Your task to perform on an android device: Open settings on Google Maps Image 0: 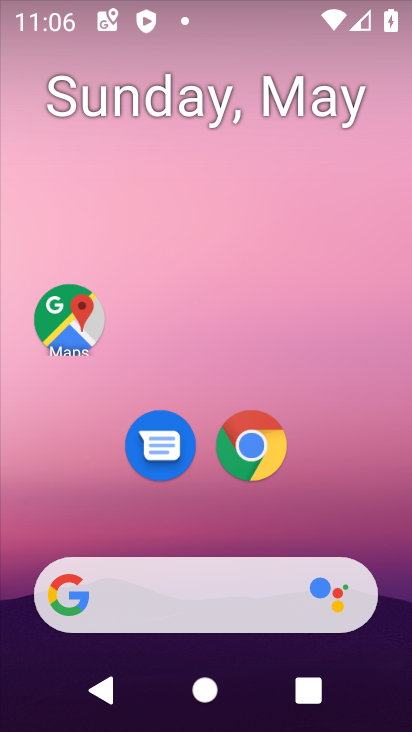
Step 0: click (52, 325)
Your task to perform on an android device: Open settings on Google Maps Image 1: 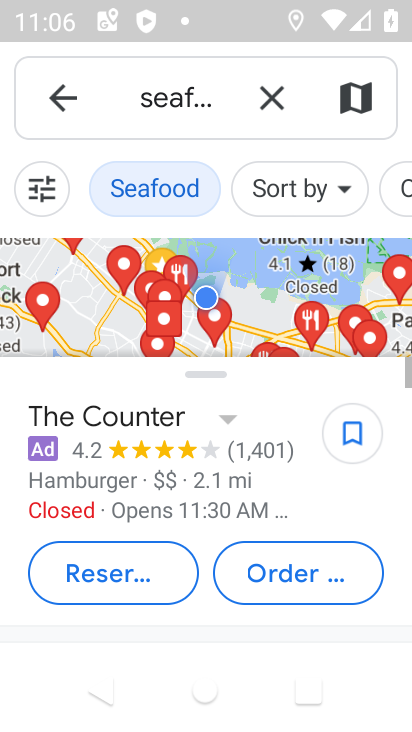
Step 1: click (59, 104)
Your task to perform on an android device: Open settings on Google Maps Image 2: 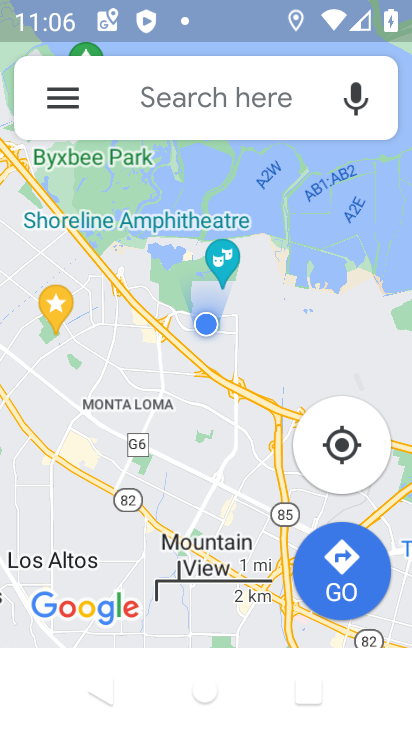
Step 2: click (59, 104)
Your task to perform on an android device: Open settings on Google Maps Image 3: 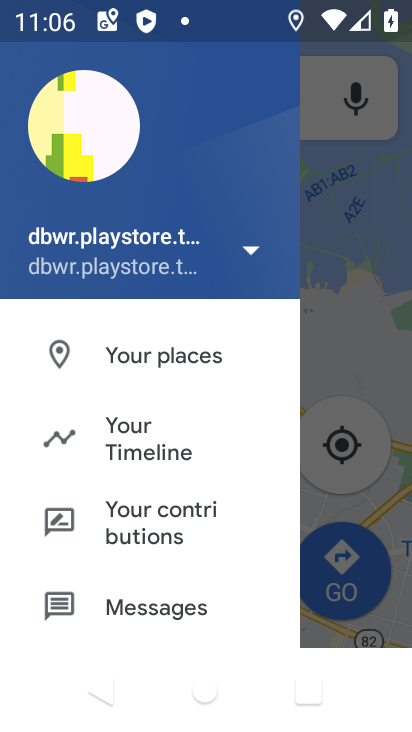
Step 3: drag from (143, 555) to (209, 56)
Your task to perform on an android device: Open settings on Google Maps Image 4: 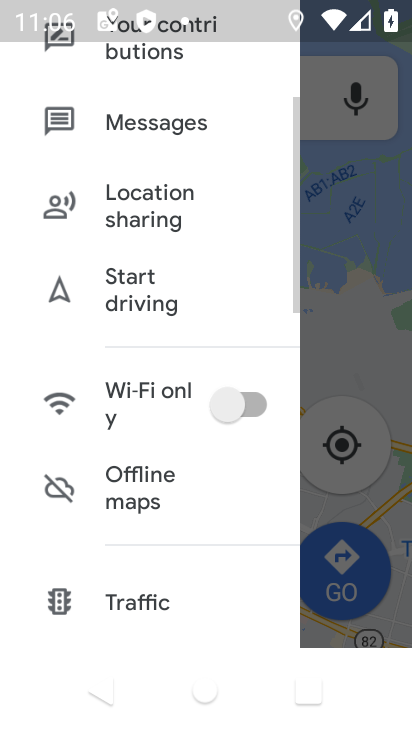
Step 4: drag from (135, 591) to (208, 177)
Your task to perform on an android device: Open settings on Google Maps Image 5: 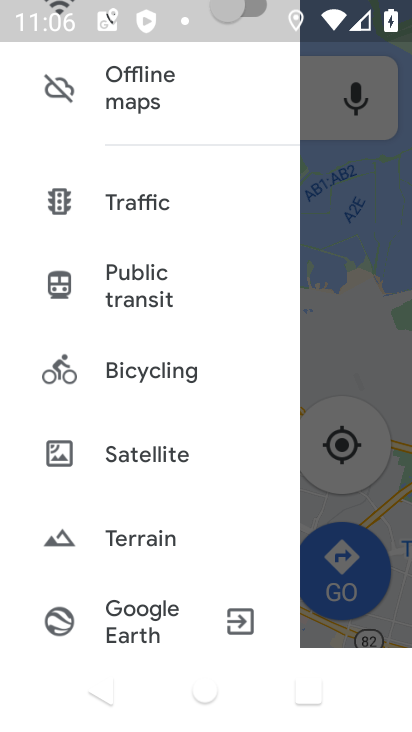
Step 5: drag from (164, 550) to (237, 165)
Your task to perform on an android device: Open settings on Google Maps Image 6: 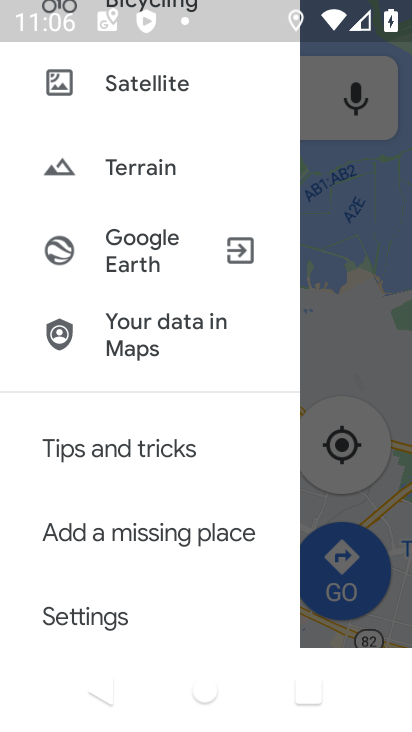
Step 6: click (99, 616)
Your task to perform on an android device: Open settings on Google Maps Image 7: 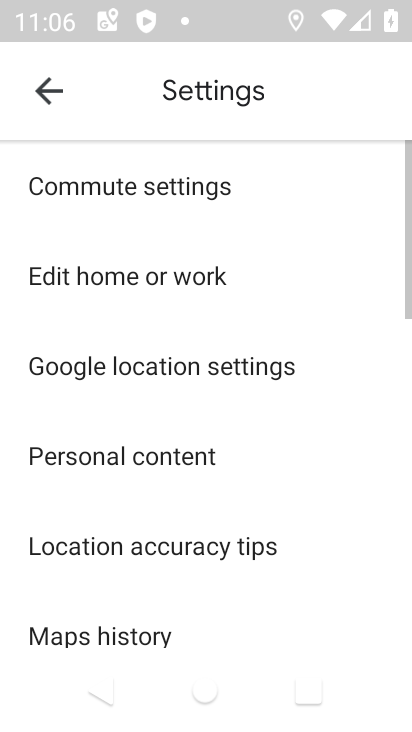
Step 7: task complete